Your task to perform on an android device: Open the calendar and show me this week's events? Image 0: 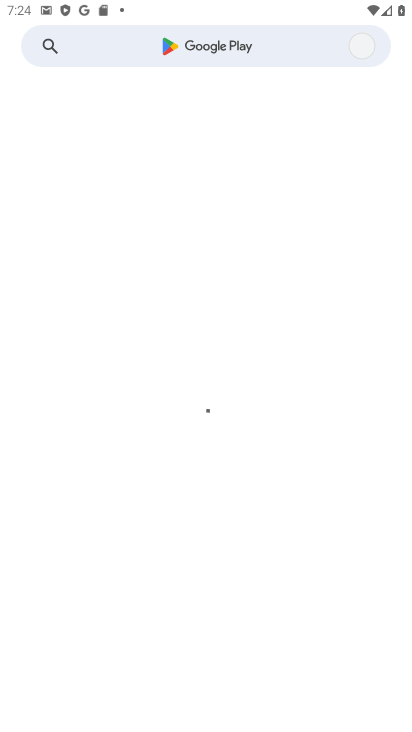
Step 0: press home button
Your task to perform on an android device: Open the calendar and show me this week's events? Image 1: 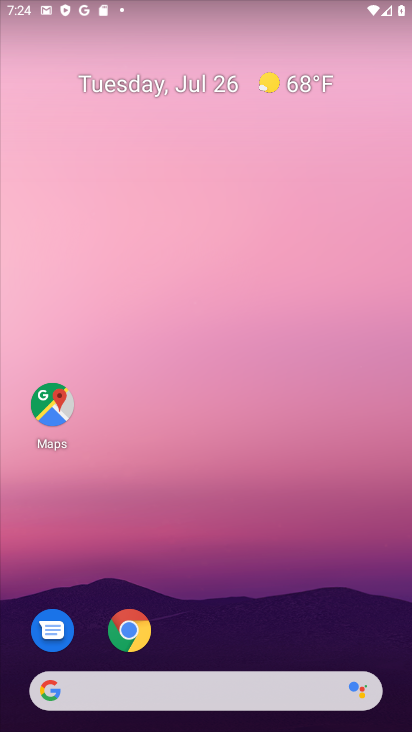
Step 1: drag from (335, 589) to (322, 135)
Your task to perform on an android device: Open the calendar and show me this week's events? Image 2: 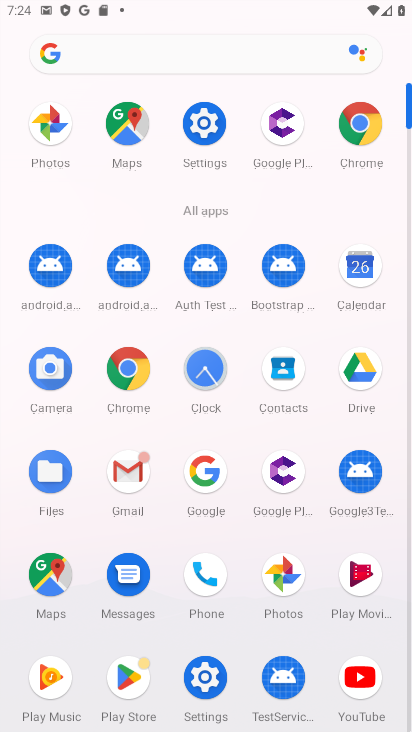
Step 2: click (354, 278)
Your task to perform on an android device: Open the calendar and show me this week's events? Image 3: 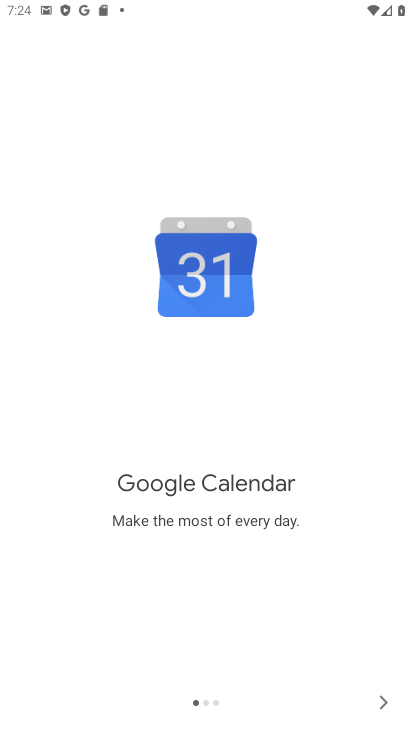
Step 3: click (378, 701)
Your task to perform on an android device: Open the calendar and show me this week's events? Image 4: 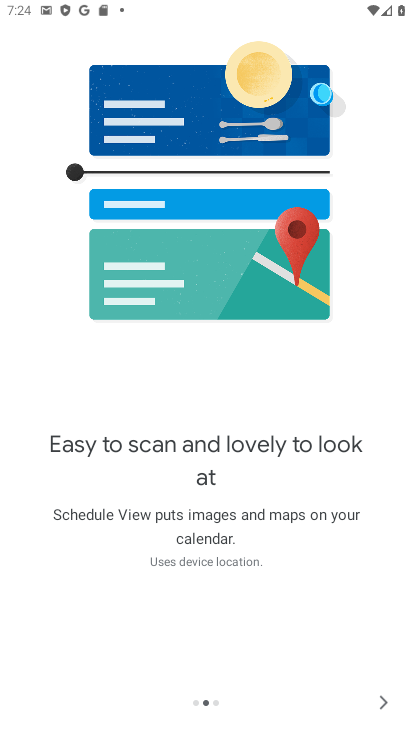
Step 4: click (378, 701)
Your task to perform on an android device: Open the calendar and show me this week's events? Image 5: 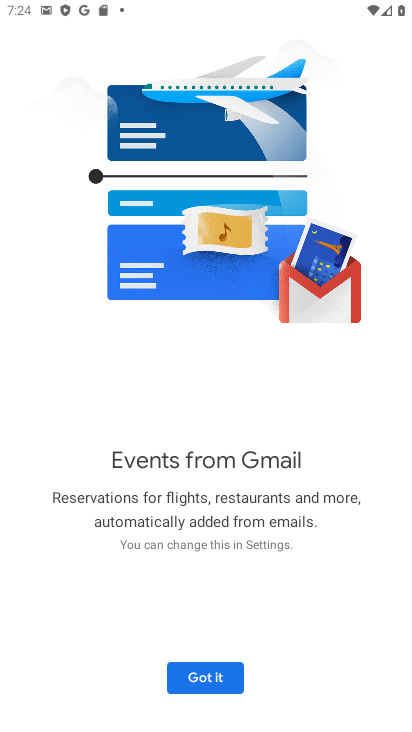
Step 5: click (227, 673)
Your task to perform on an android device: Open the calendar and show me this week's events? Image 6: 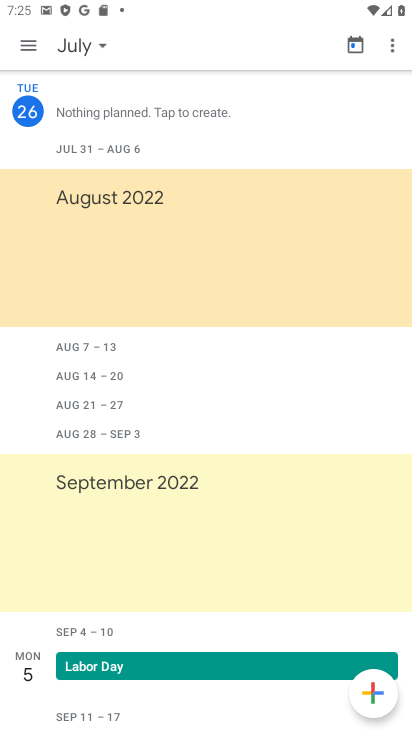
Step 6: task complete